Your task to perform on an android device: read, delete, or share a saved page in the chrome app Image 0: 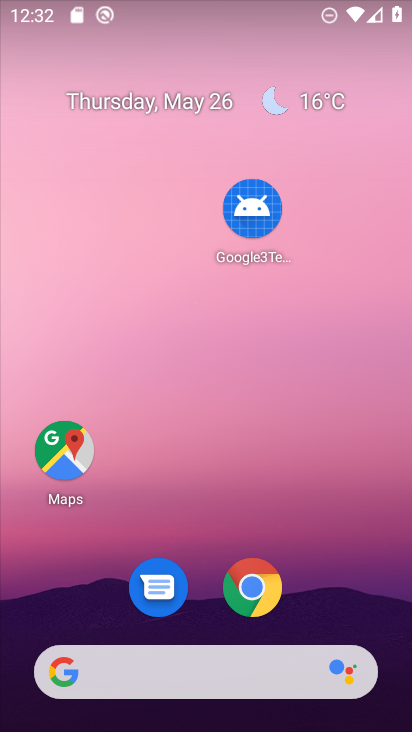
Step 0: click (253, 598)
Your task to perform on an android device: read, delete, or share a saved page in the chrome app Image 1: 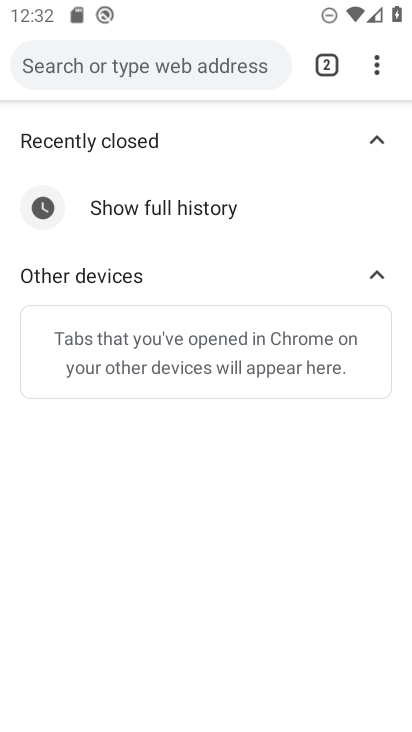
Step 1: task complete